Your task to perform on an android device: Turn on the flashlight Image 0: 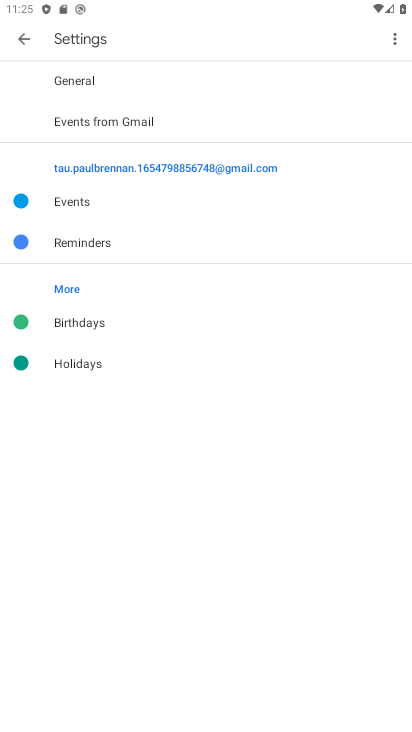
Step 0: press home button
Your task to perform on an android device: Turn on the flashlight Image 1: 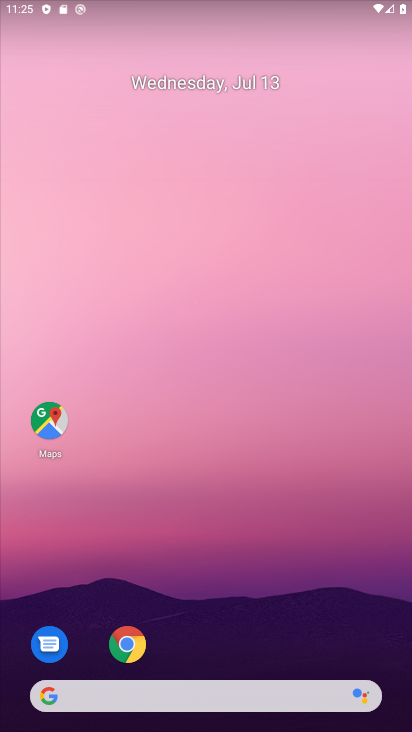
Step 1: task complete